Your task to perform on an android device: delete browsing data in the chrome app Image 0: 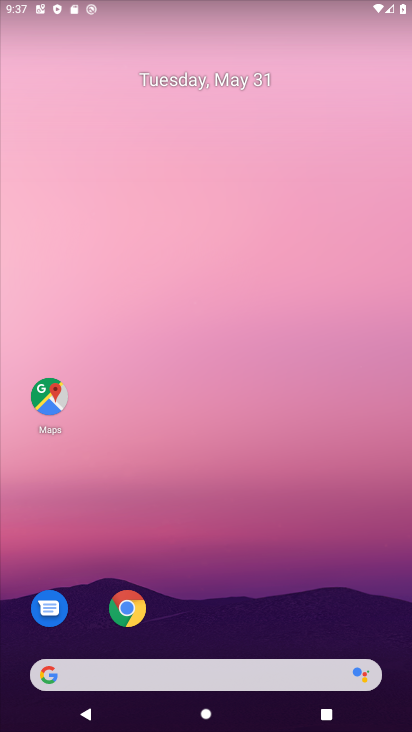
Step 0: click (124, 614)
Your task to perform on an android device: delete browsing data in the chrome app Image 1: 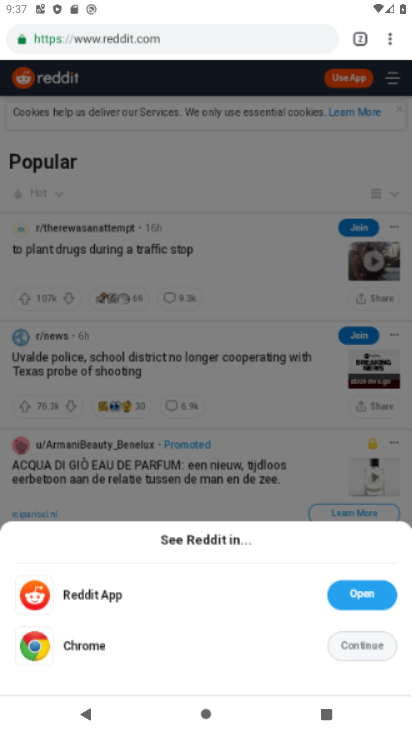
Step 1: task complete